Your task to perform on an android device: Go to internet settings Image 0: 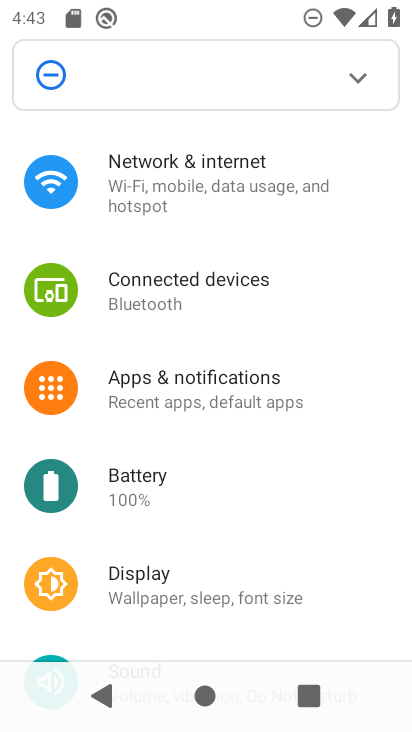
Step 0: click (168, 247)
Your task to perform on an android device: Go to internet settings Image 1: 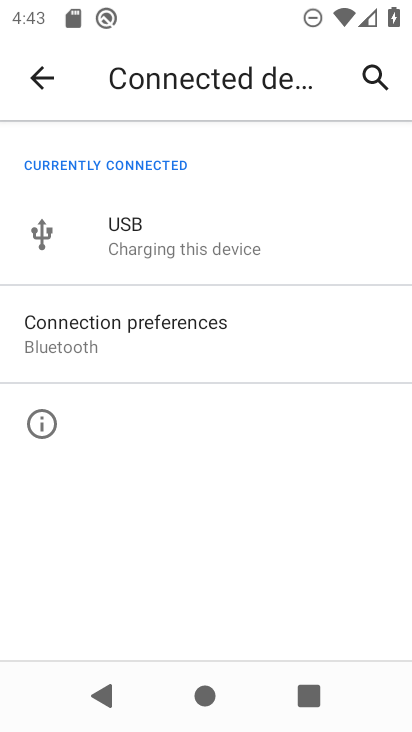
Step 1: drag from (138, 574) to (238, 159)
Your task to perform on an android device: Go to internet settings Image 2: 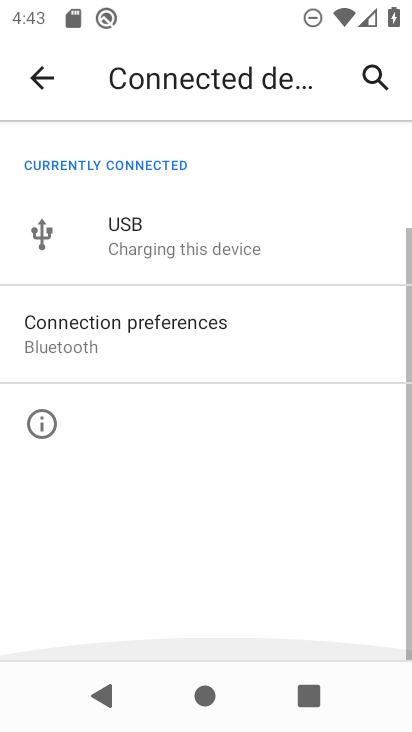
Step 2: click (33, 72)
Your task to perform on an android device: Go to internet settings Image 3: 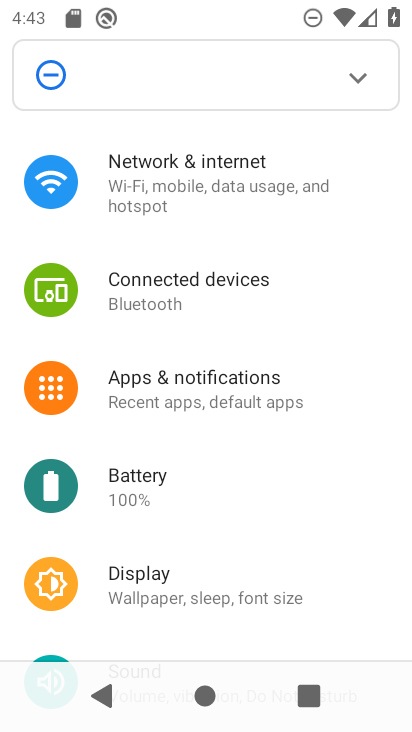
Step 3: drag from (227, 249) to (227, 586)
Your task to perform on an android device: Go to internet settings Image 4: 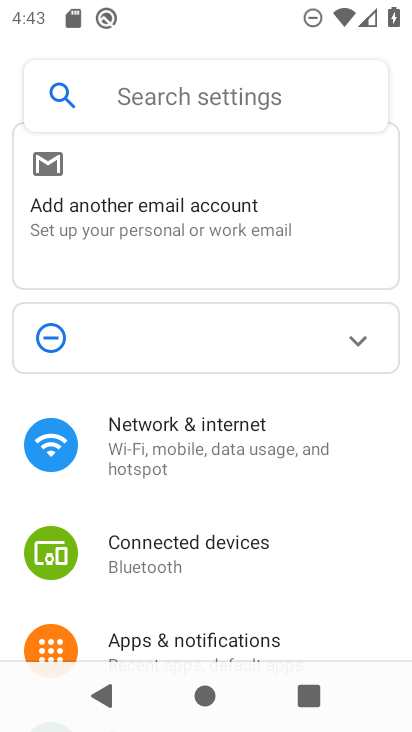
Step 4: click (147, 463)
Your task to perform on an android device: Go to internet settings Image 5: 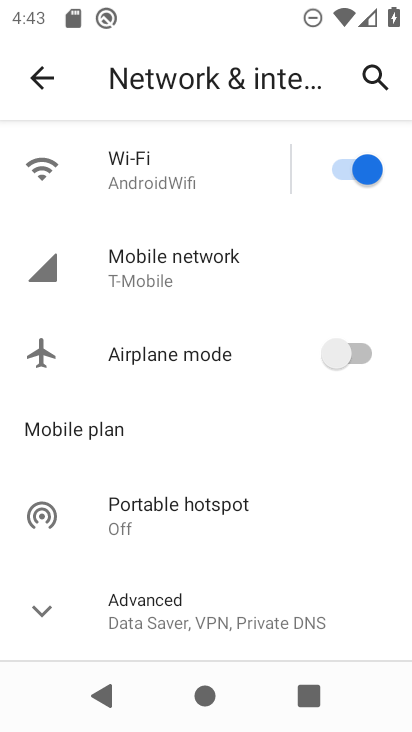
Step 5: task complete